Your task to perform on an android device: Search for sushi restaurants on Maps Image 0: 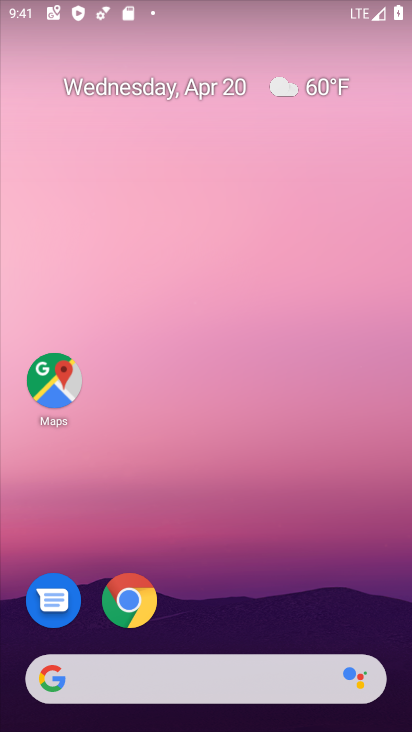
Step 0: click (53, 370)
Your task to perform on an android device: Search for sushi restaurants on Maps Image 1: 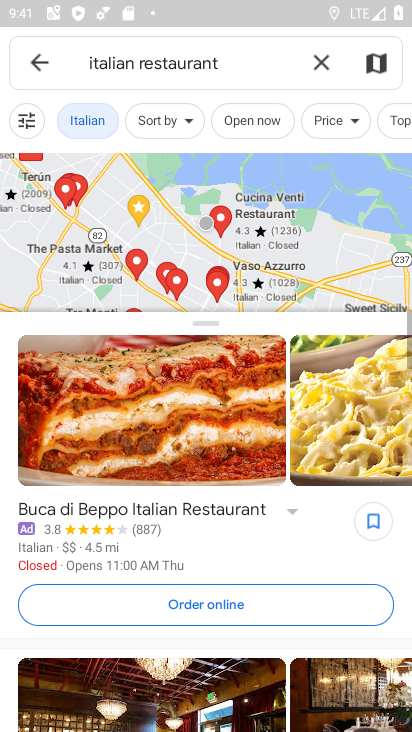
Step 1: click (316, 54)
Your task to perform on an android device: Search for sushi restaurants on Maps Image 2: 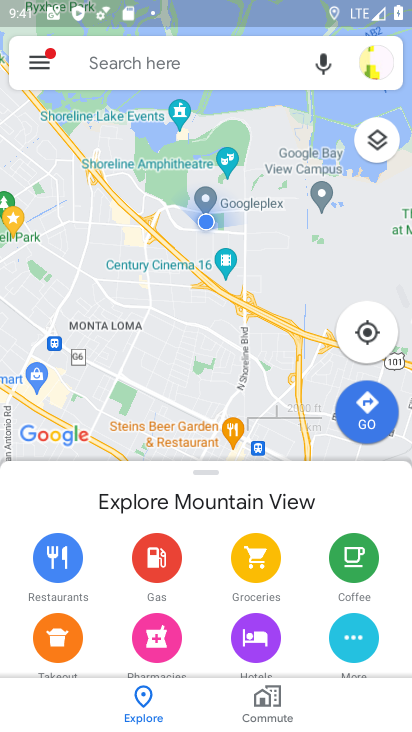
Step 2: click (215, 63)
Your task to perform on an android device: Search for sushi restaurants on Maps Image 3: 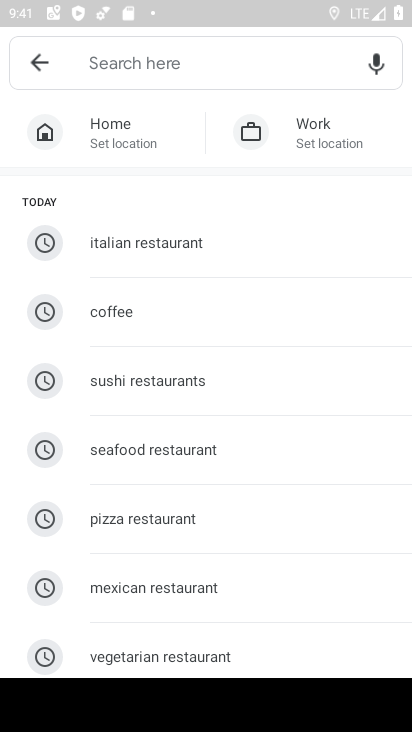
Step 3: type "sushi restaurant"
Your task to perform on an android device: Search for sushi restaurants on Maps Image 4: 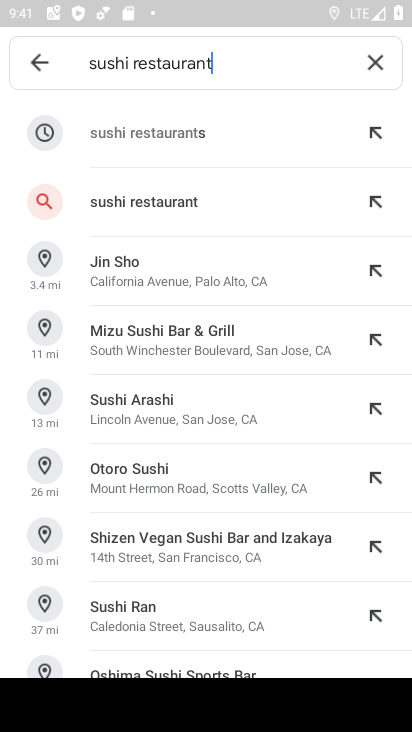
Step 4: click (314, 214)
Your task to perform on an android device: Search for sushi restaurants on Maps Image 5: 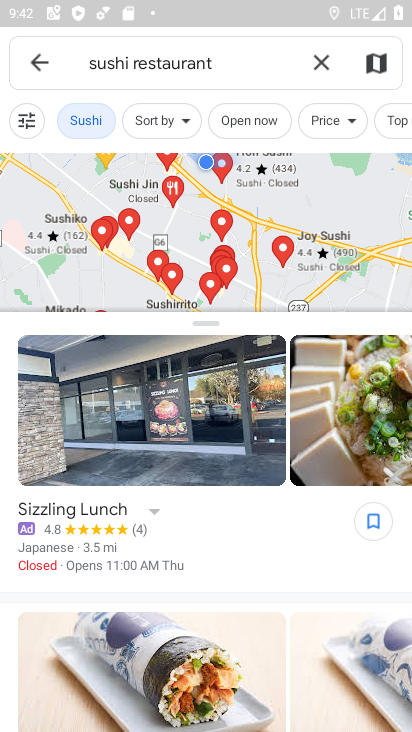
Step 5: task complete